Your task to perform on an android device: When is my next appointment? Image 0: 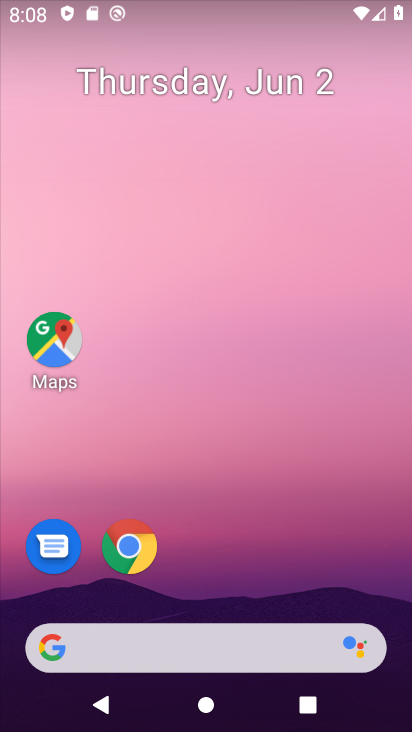
Step 0: drag from (283, 712) to (230, 186)
Your task to perform on an android device: When is my next appointment? Image 1: 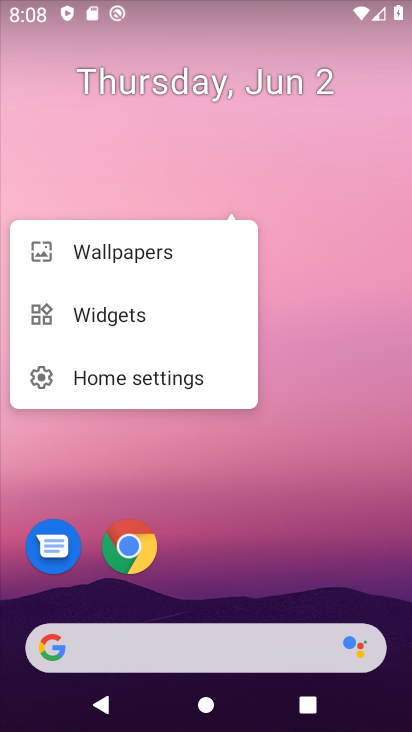
Step 1: drag from (274, 422) to (269, 97)
Your task to perform on an android device: When is my next appointment? Image 2: 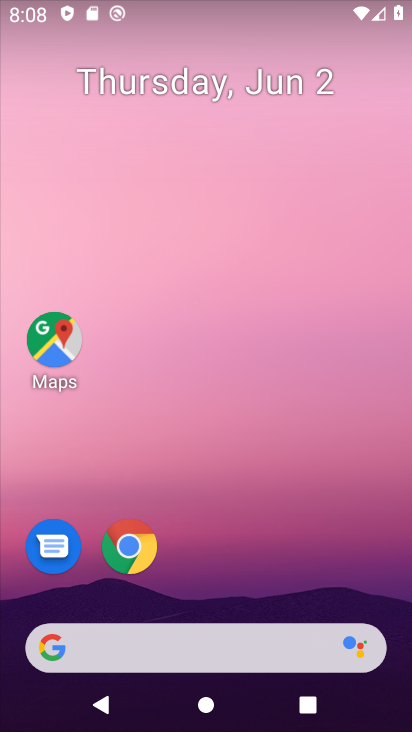
Step 2: drag from (225, 637) to (193, 98)
Your task to perform on an android device: When is my next appointment? Image 3: 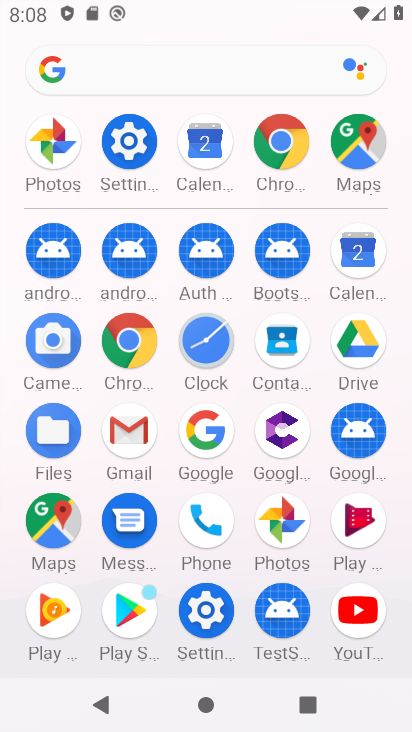
Step 3: click (362, 259)
Your task to perform on an android device: When is my next appointment? Image 4: 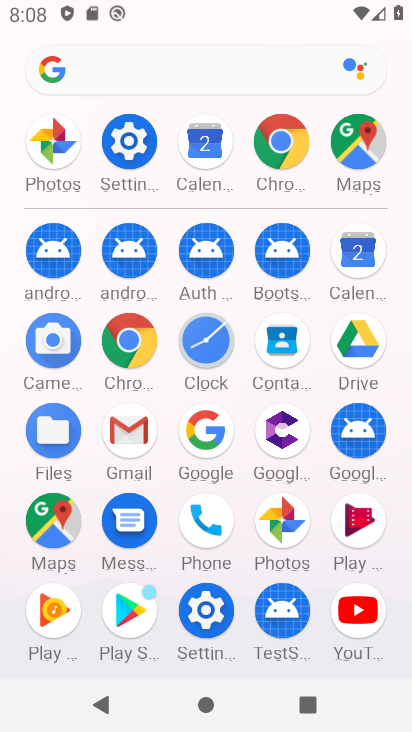
Step 4: click (361, 258)
Your task to perform on an android device: When is my next appointment? Image 5: 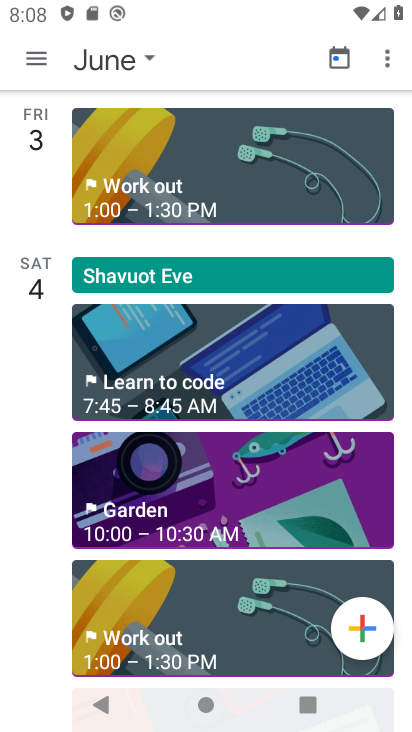
Step 5: task complete